Your task to perform on an android device: Open privacy settings Image 0: 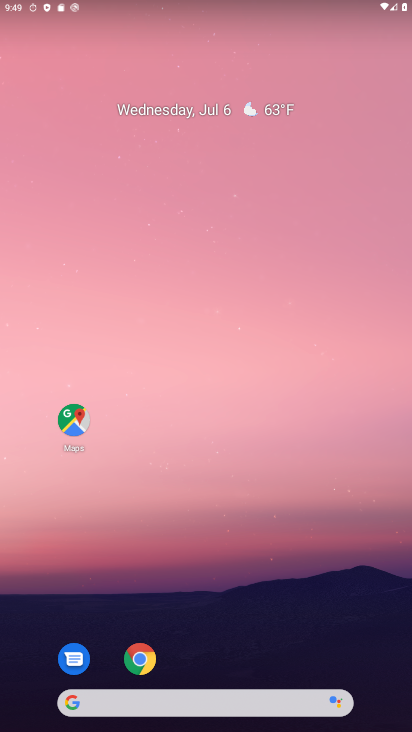
Step 0: drag from (234, 393) to (272, 269)
Your task to perform on an android device: Open privacy settings Image 1: 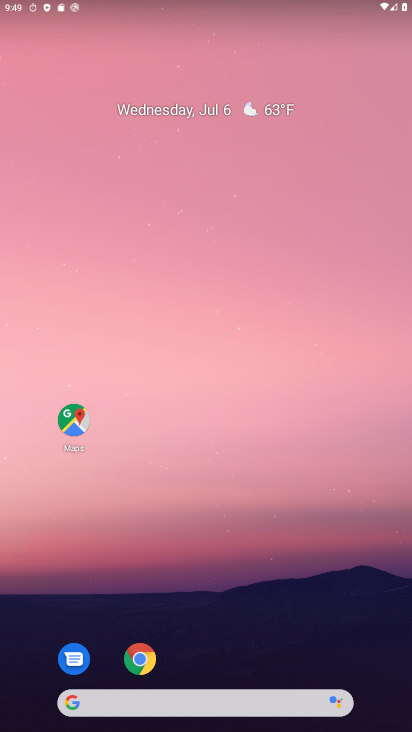
Step 1: drag from (195, 649) to (294, 266)
Your task to perform on an android device: Open privacy settings Image 2: 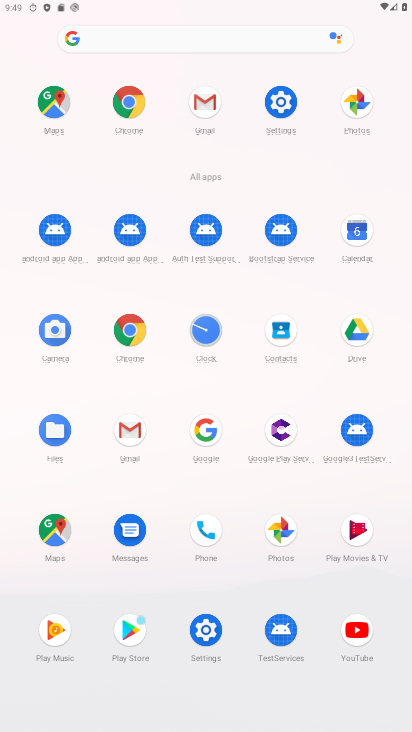
Step 2: click (279, 106)
Your task to perform on an android device: Open privacy settings Image 3: 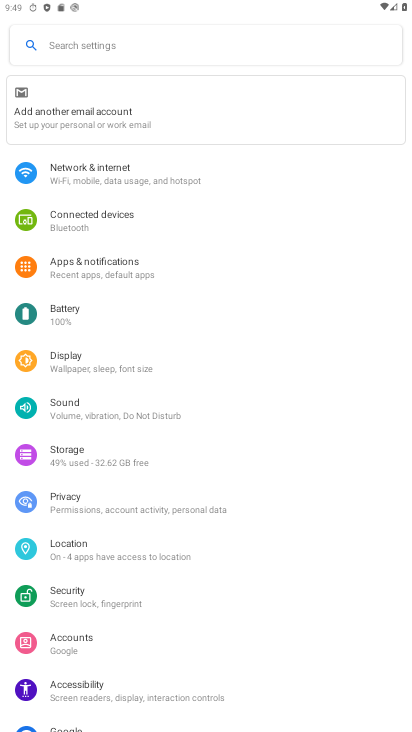
Step 3: click (95, 513)
Your task to perform on an android device: Open privacy settings Image 4: 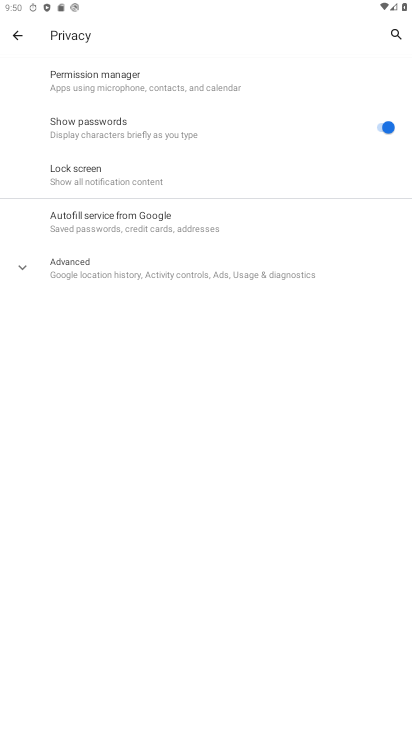
Step 4: task complete